Your task to perform on an android device: Open the map Image 0: 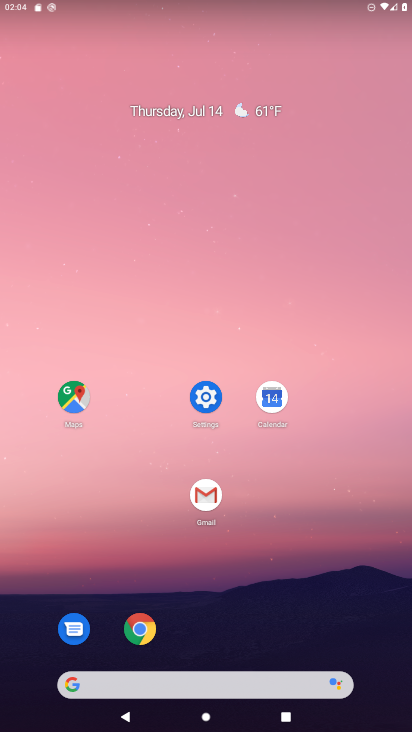
Step 0: click (67, 398)
Your task to perform on an android device: Open the map Image 1: 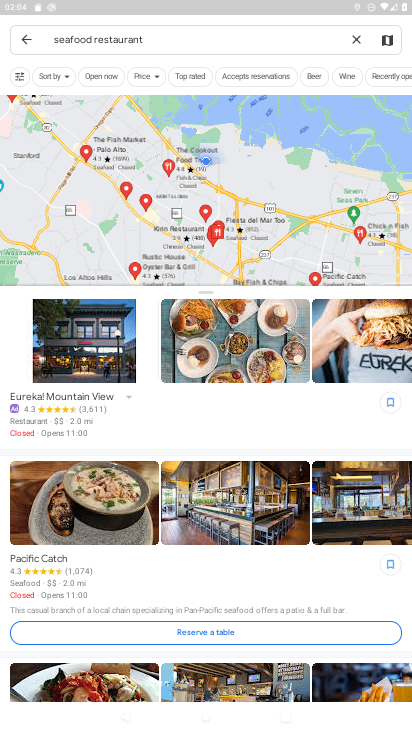
Step 1: click (30, 44)
Your task to perform on an android device: Open the map Image 2: 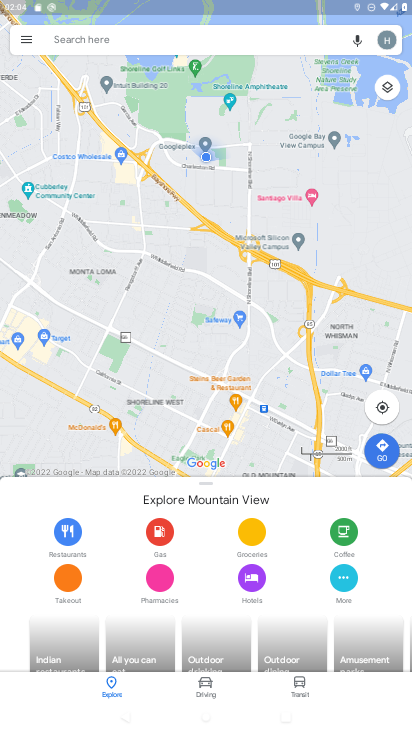
Step 2: task complete